Your task to perform on an android device: toggle location history Image 0: 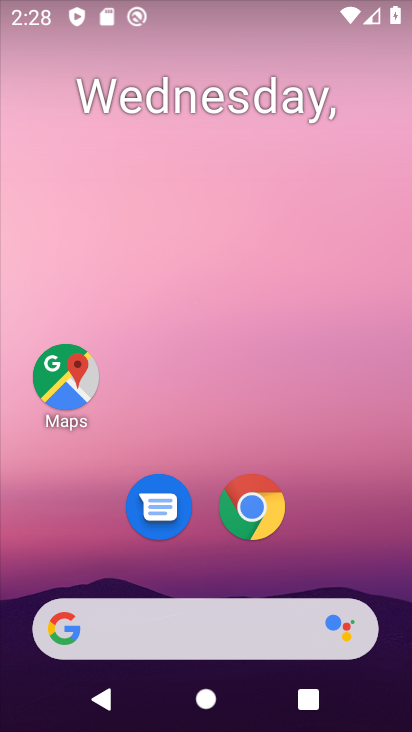
Step 0: drag from (333, 486) to (355, 36)
Your task to perform on an android device: toggle location history Image 1: 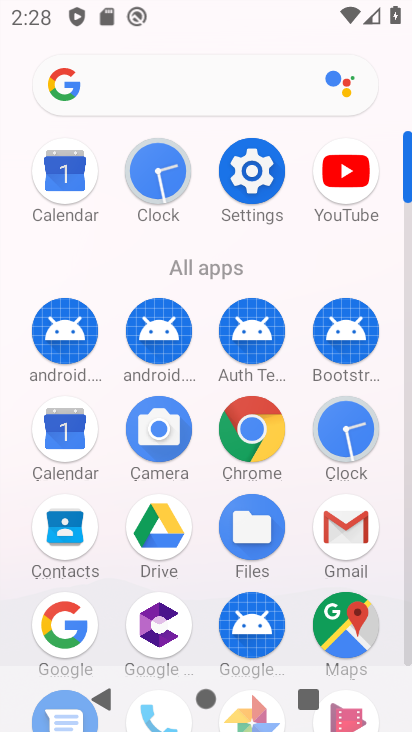
Step 1: click (258, 204)
Your task to perform on an android device: toggle location history Image 2: 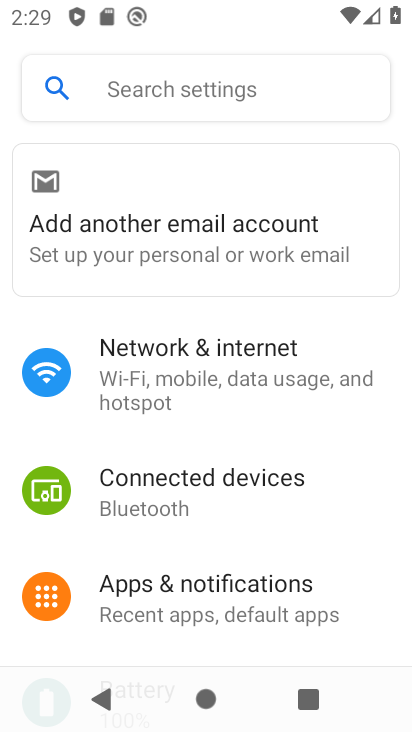
Step 2: drag from (221, 545) to (313, 55)
Your task to perform on an android device: toggle location history Image 3: 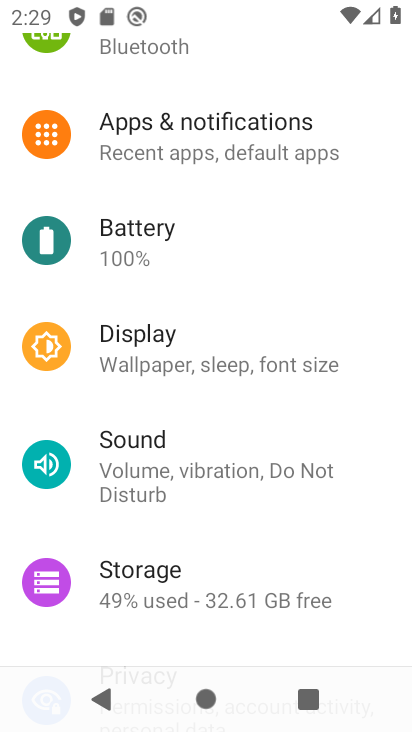
Step 3: drag from (220, 588) to (261, 269)
Your task to perform on an android device: toggle location history Image 4: 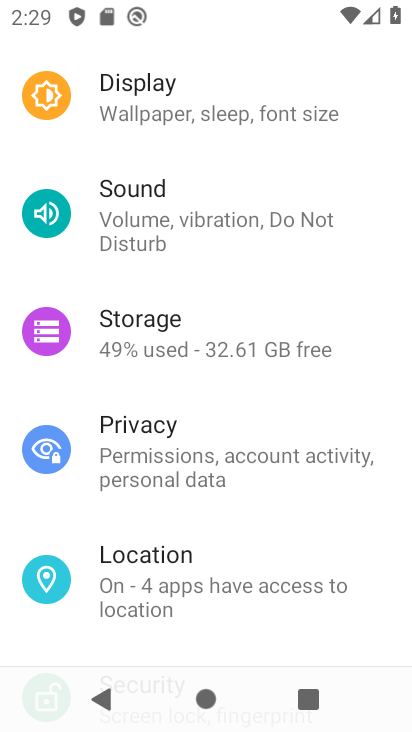
Step 4: drag from (238, 447) to (289, 8)
Your task to perform on an android device: toggle location history Image 5: 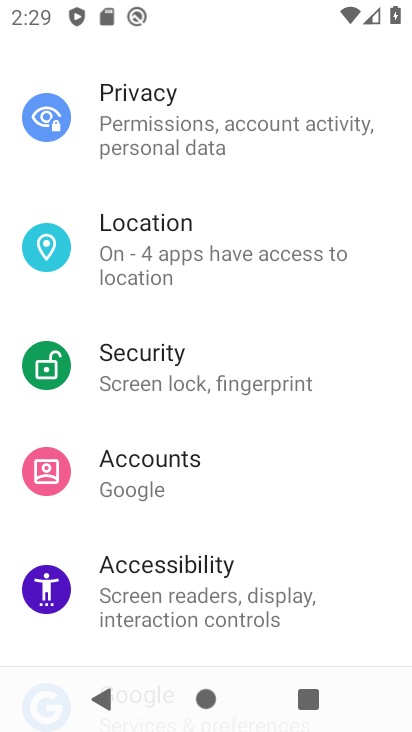
Step 5: click (173, 273)
Your task to perform on an android device: toggle location history Image 6: 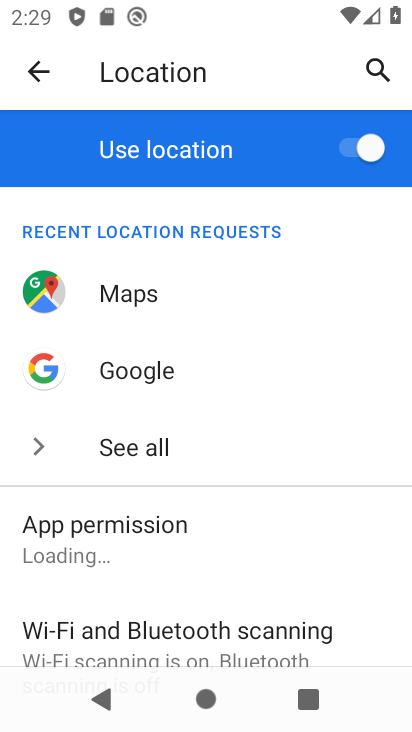
Step 6: drag from (176, 619) to (256, 303)
Your task to perform on an android device: toggle location history Image 7: 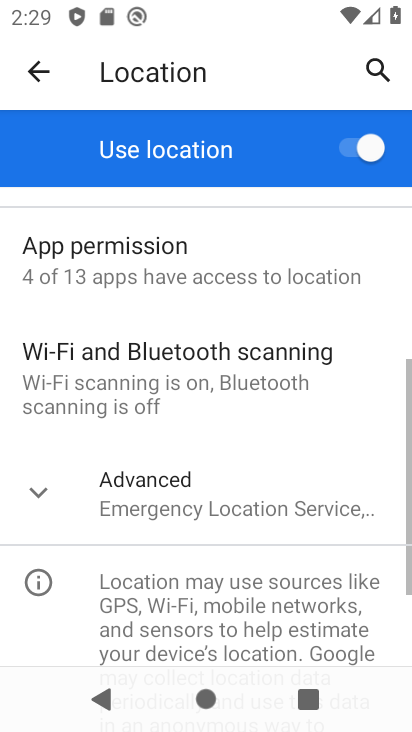
Step 7: click (189, 484)
Your task to perform on an android device: toggle location history Image 8: 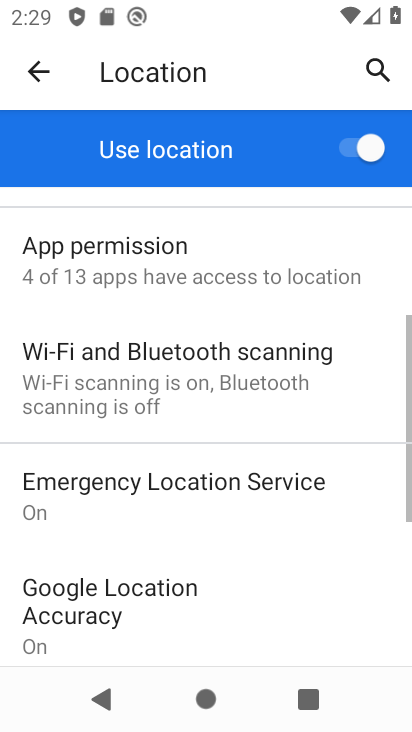
Step 8: drag from (176, 583) to (250, 322)
Your task to perform on an android device: toggle location history Image 9: 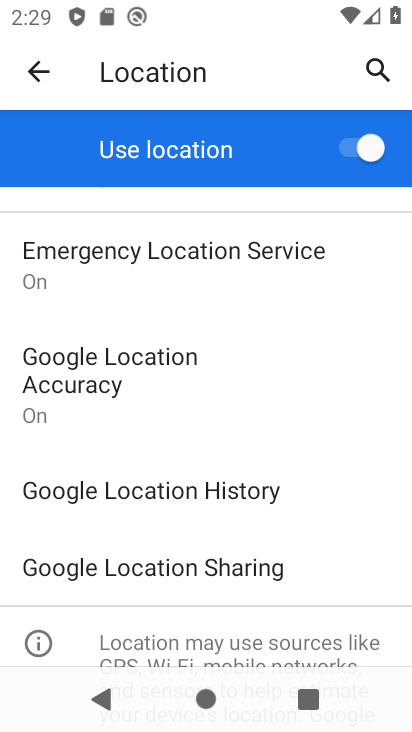
Step 9: click (155, 495)
Your task to perform on an android device: toggle location history Image 10: 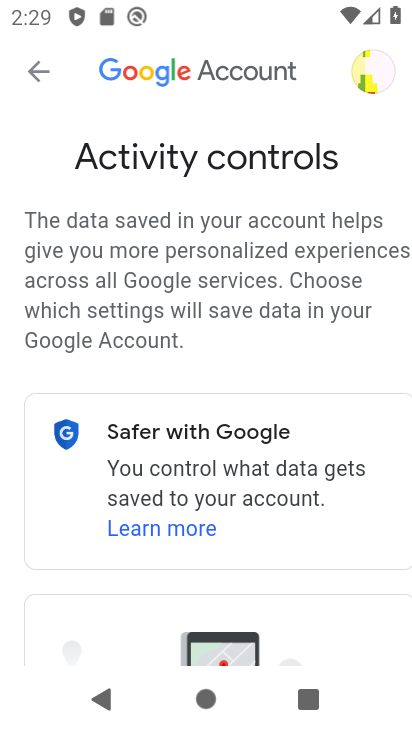
Step 10: drag from (339, 344) to (356, 33)
Your task to perform on an android device: toggle location history Image 11: 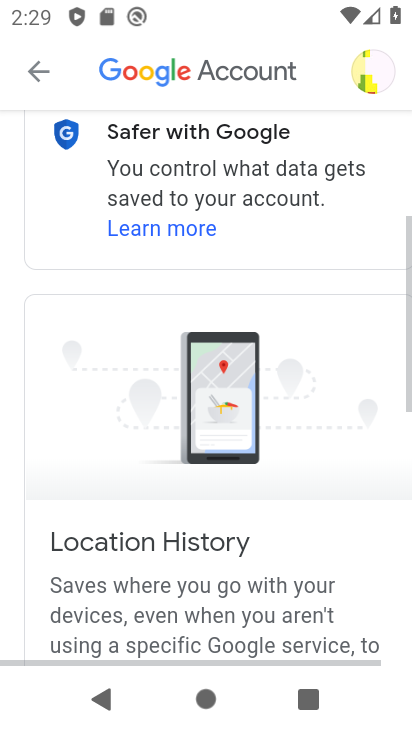
Step 11: drag from (312, 524) to (394, 206)
Your task to perform on an android device: toggle location history Image 12: 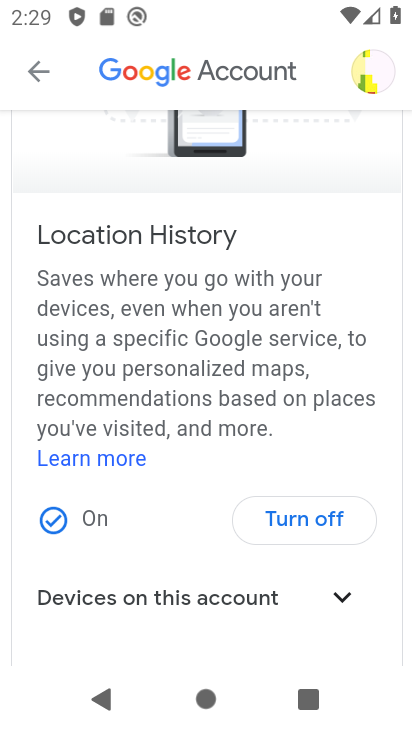
Step 12: click (322, 510)
Your task to perform on an android device: toggle location history Image 13: 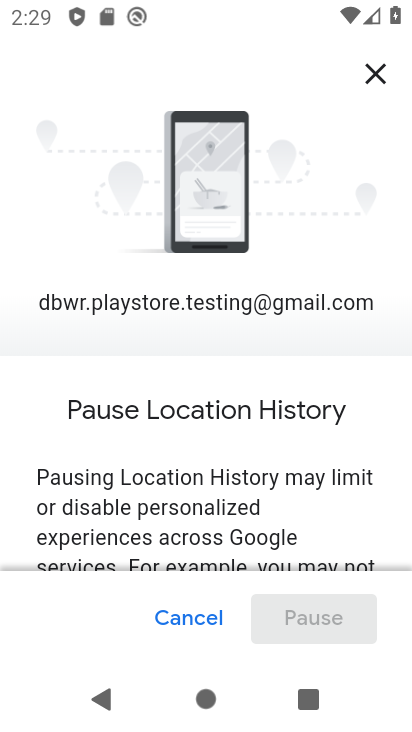
Step 13: drag from (350, 495) to (408, 154)
Your task to perform on an android device: toggle location history Image 14: 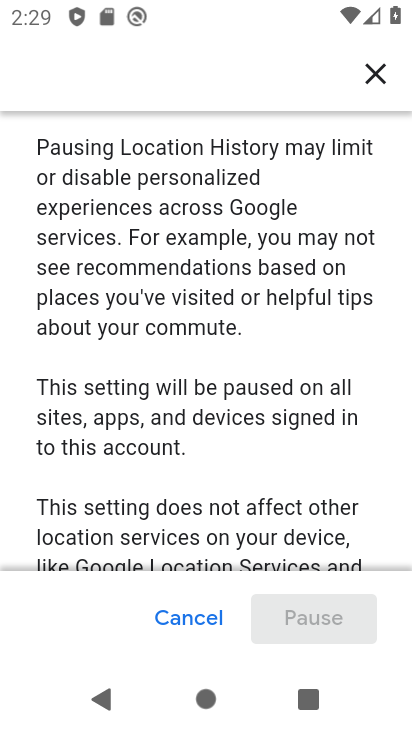
Step 14: drag from (341, 473) to (358, 218)
Your task to perform on an android device: toggle location history Image 15: 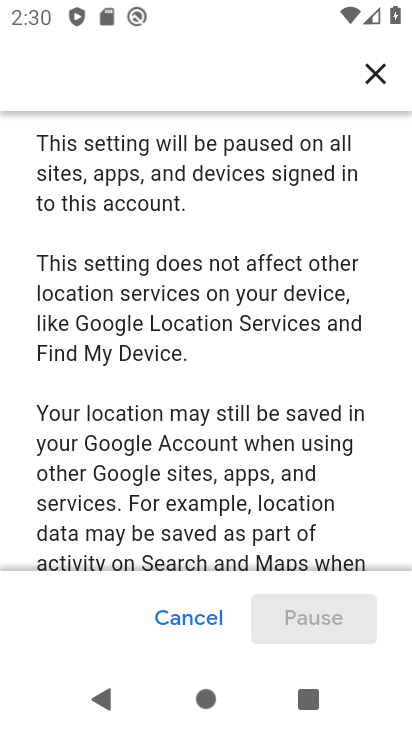
Step 15: drag from (303, 469) to (289, 151)
Your task to perform on an android device: toggle location history Image 16: 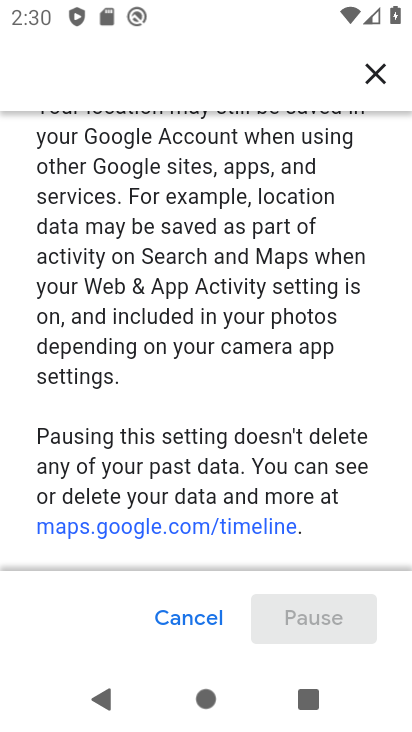
Step 16: drag from (226, 407) to (257, 88)
Your task to perform on an android device: toggle location history Image 17: 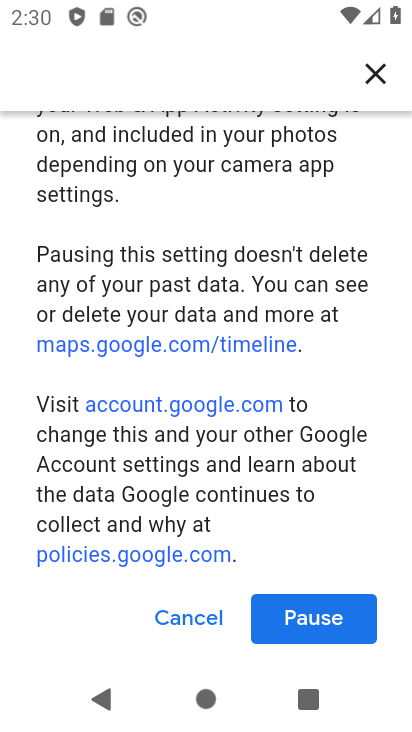
Step 17: click (278, 629)
Your task to perform on an android device: toggle location history Image 18: 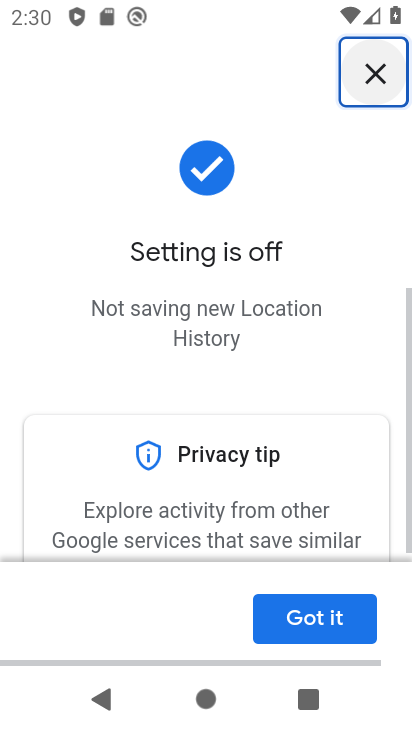
Step 18: task complete